Your task to perform on an android device: Search for pizza restaurants on Maps Image 0: 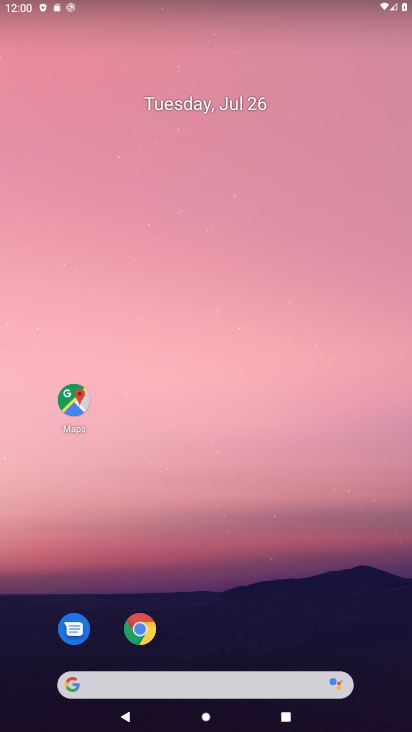
Step 0: click (72, 412)
Your task to perform on an android device: Search for pizza restaurants on Maps Image 1: 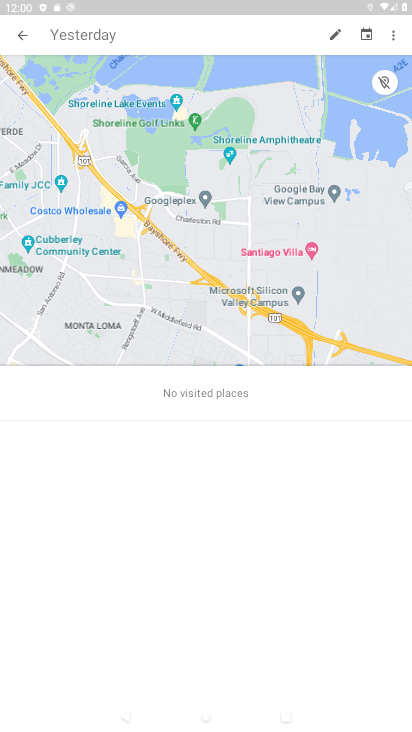
Step 1: click (32, 39)
Your task to perform on an android device: Search for pizza restaurants on Maps Image 2: 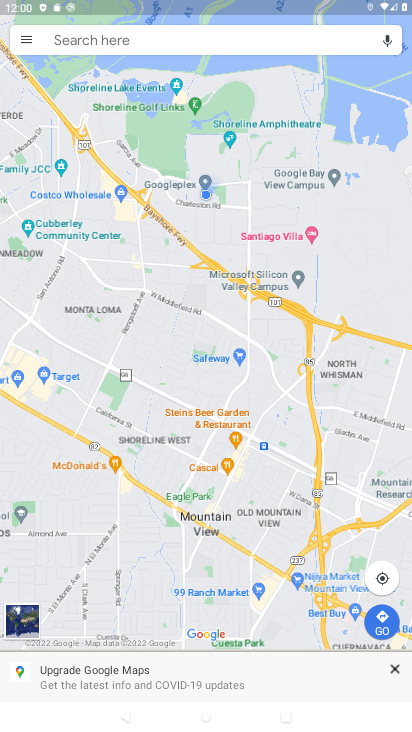
Step 2: click (136, 41)
Your task to perform on an android device: Search for pizza restaurants on Maps Image 3: 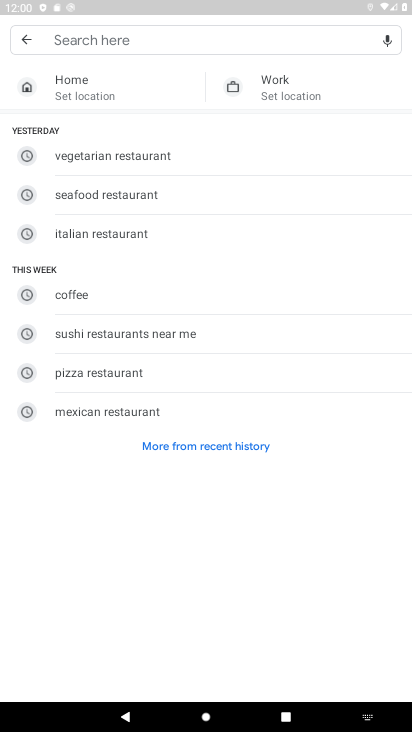
Step 3: click (182, 372)
Your task to perform on an android device: Search for pizza restaurants on Maps Image 4: 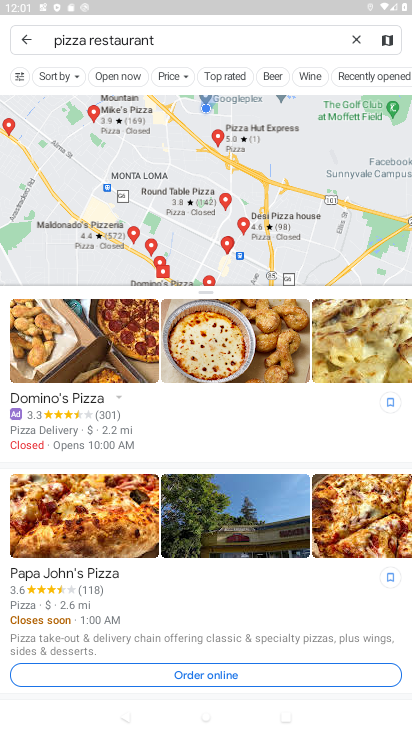
Step 4: task complete